Your task to perform on an android device: Go to notification settings Image 0: 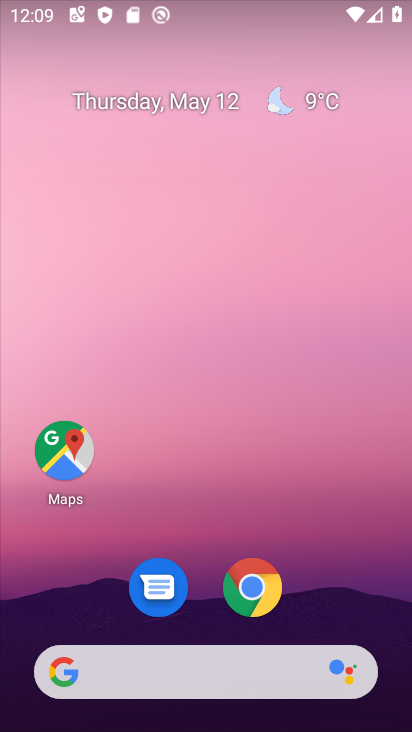
Step 0: drag from (311, 583) to (311, 195)
Your task to perform on an android device: Go to notification settings Image 1: 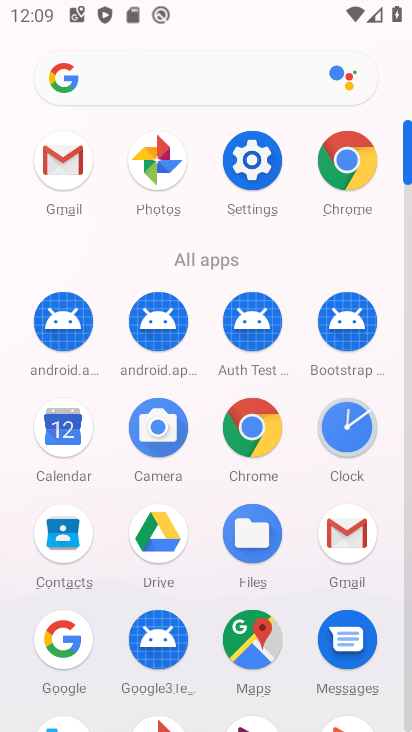
Step 1: click (242, 158)
Your task to perform on an android device: Go to notification settings Image 2: 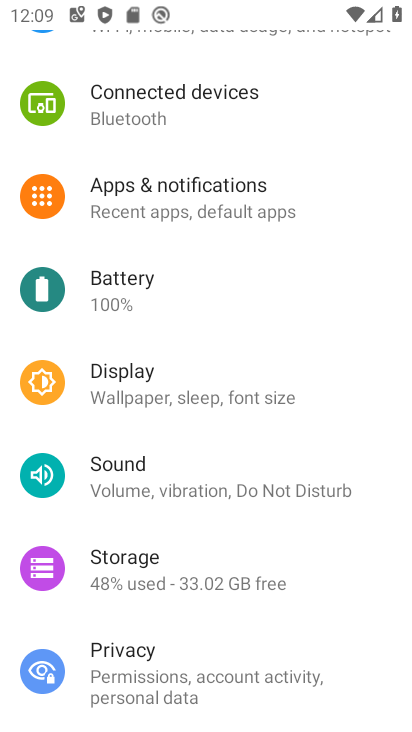
Step 2: click (224, 185)
Your task to perform on an android device: Go to notification settings Image 3: 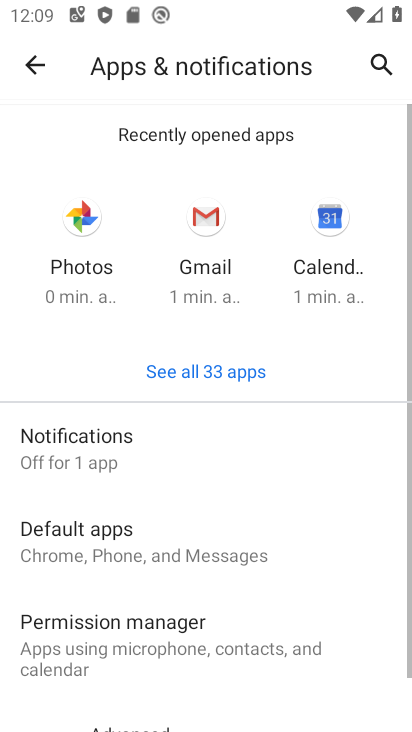
Step 3: click (117, 450)
Your task to perform on an android device: Go to notification settings Image 4: 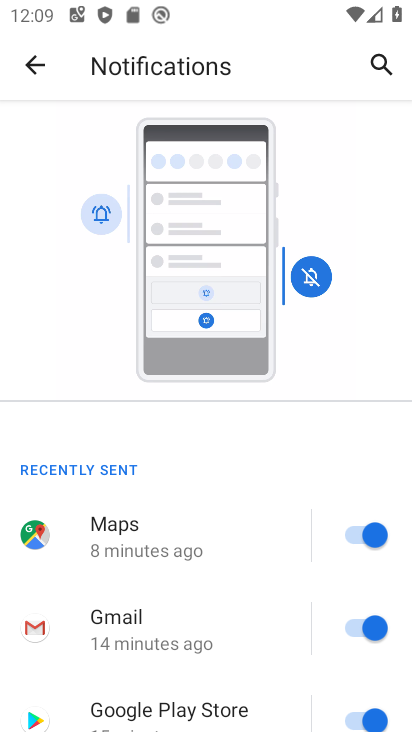
Step 4: task complete